Your task to perform on an android device: make emails show in primary in the gmail app Image 0: 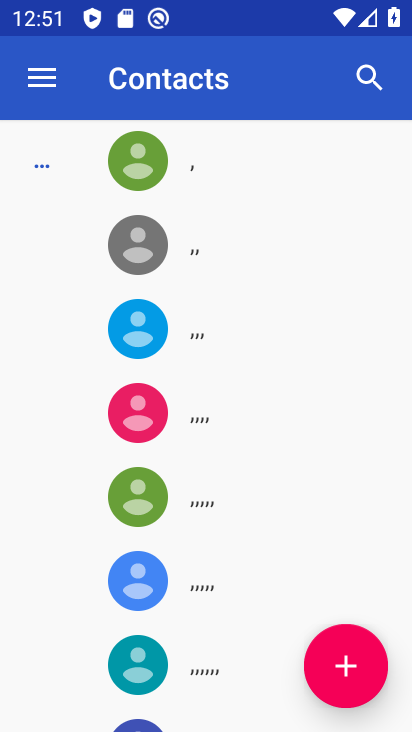
Step 0: press home button
Your task to perform on an android device: make emails show in primary in the gmail app Image 1: 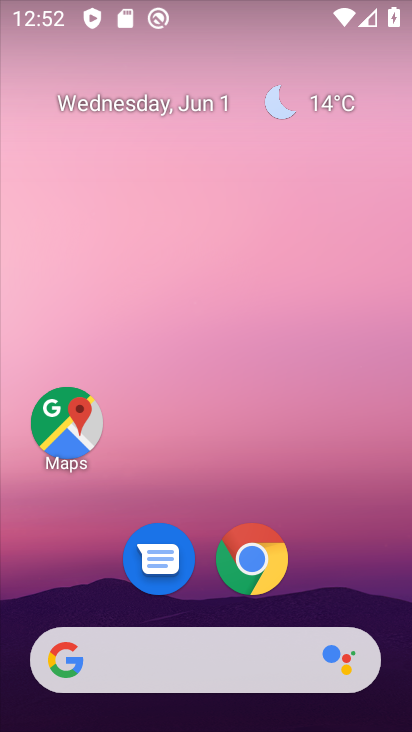
Step 1: drag from (383, 668) to (338, 197)
Your task to perform on an android device: make emails show in primary in the gmail app Image 2: 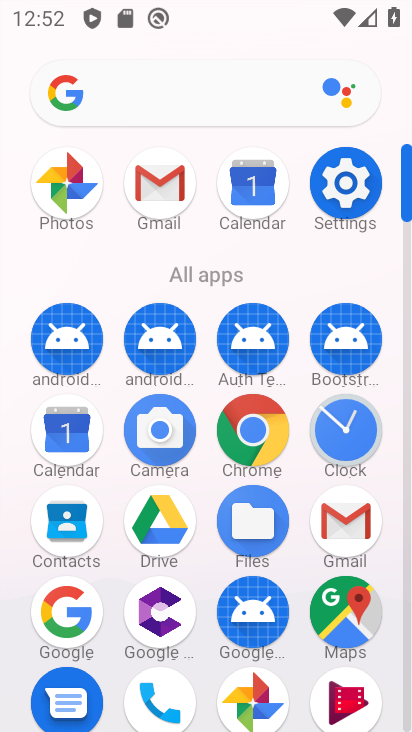
Step 2: click (350, 524)
Your task to perform on an android device: make emails show in primary in the gmail app Image 3: 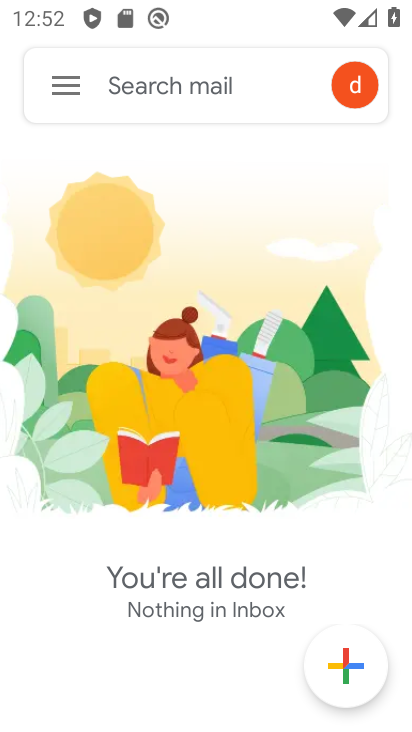
Step 3: click (74, 91)
Your task to perform on an android device: make emails show in primary in the gmail app Image 4: 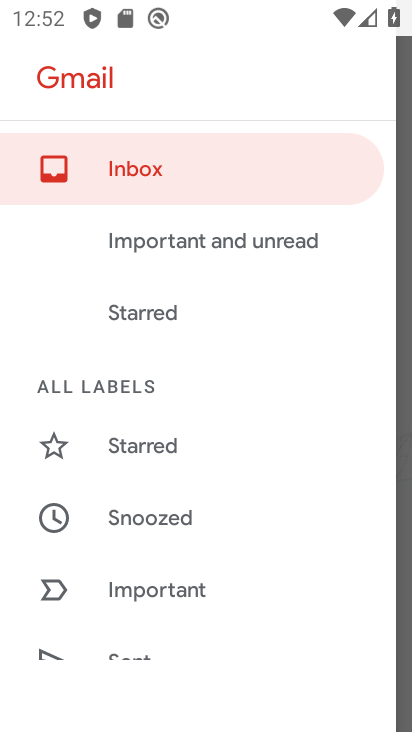
Step 4: drag from (225, 650) to (240, 339)
Your task to perform on an android device: make emails show in primary in the gmail app Image 5: 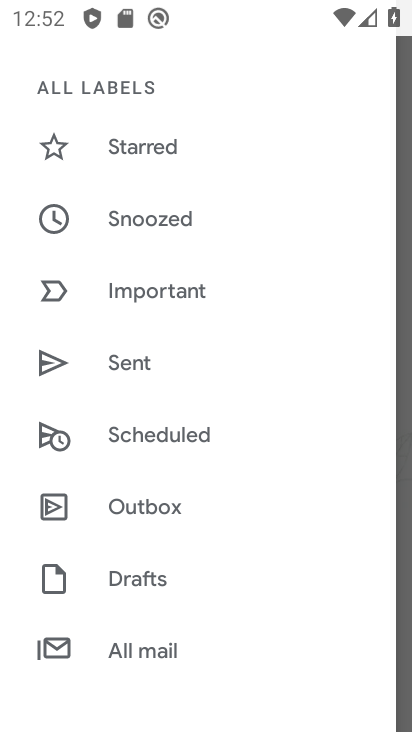
Step 5: drag from (272, 619) to (284, 278)
Your task to perform on an android device: make emails show in primary in the gmail app Image 6: 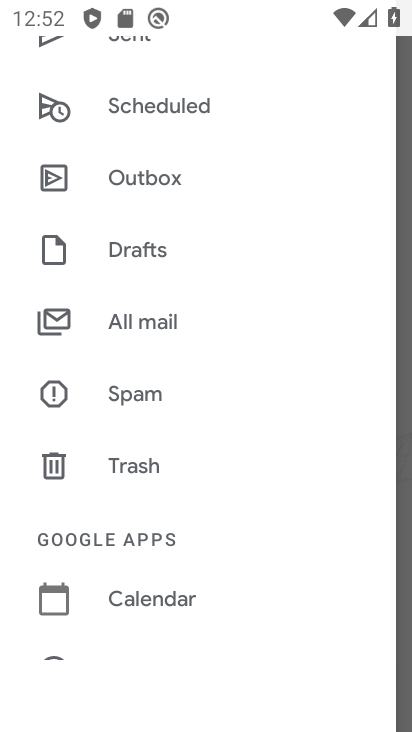
Step 6: drag from (263, 82) to (283, 500)
Your task to perform on an android device: make emails show in primary in the gmail app Image 7: 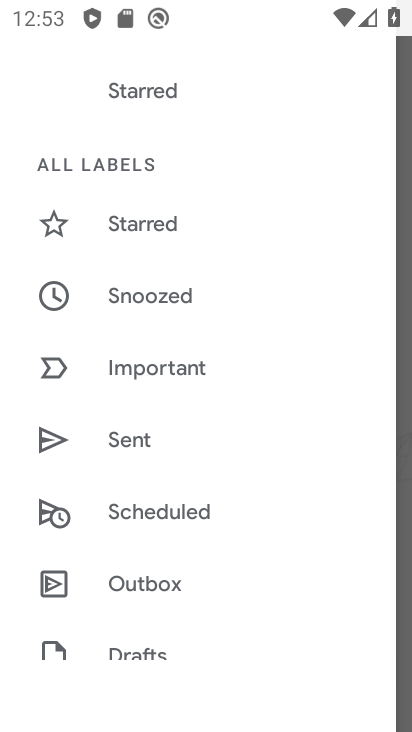
Step 7: drag from (274, 635) to (282, 222)
Your task to perform on an android device: make emails show in primary in the gmail app Image 8: 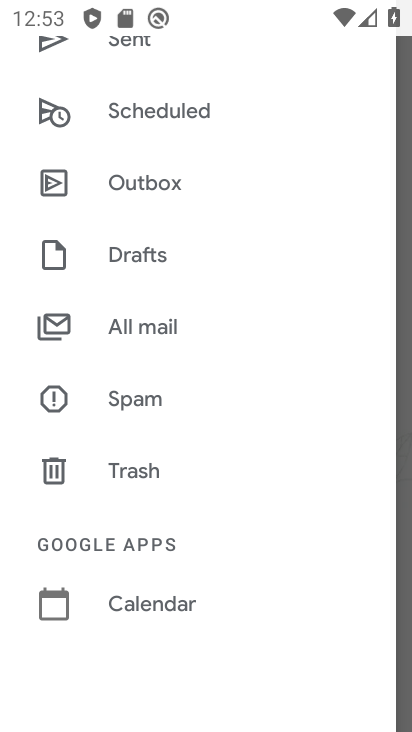
Step 8: drag from (274, 576) to (280, 252)
Your task to perform on an android device: make emails show in primary in the gmail app Image 9: 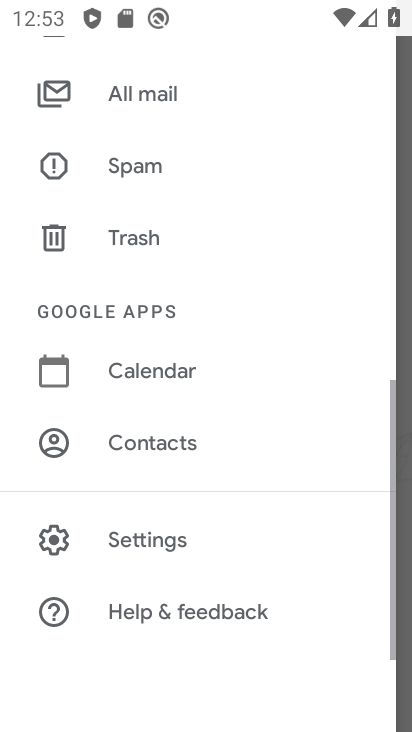
Step 9: click (98, 536)
Your task to perform on an android device: make emails show in primary in the gmail app Image 10: 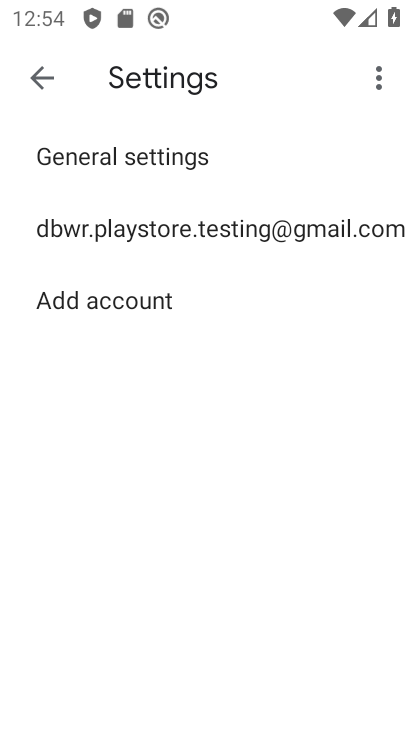
Step 10: click (130, 221)
Your task to perform on an android device: make emails show in primary in the gmail app Image 11: 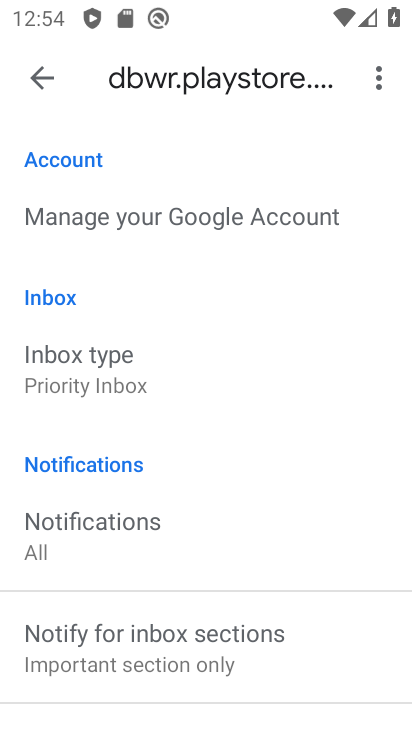
Step 11: click (59, 368)
Your task to perform on an android device: make emails show in primary in the gmail app Image 12: 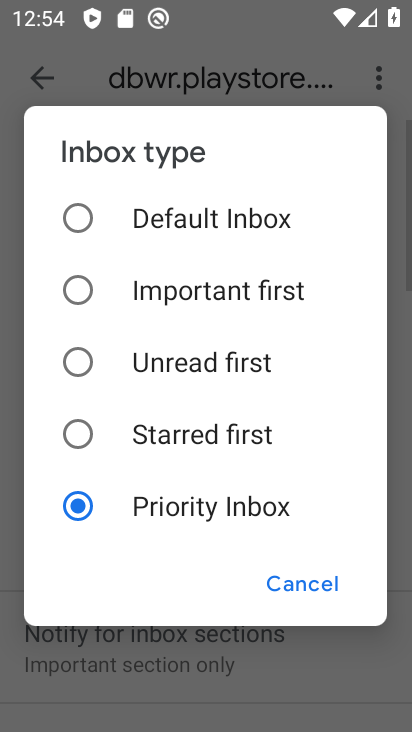
Step 12: click (130, 214)
Your task to perform on an android device: make emails show in primary in the gmail app Image 13: 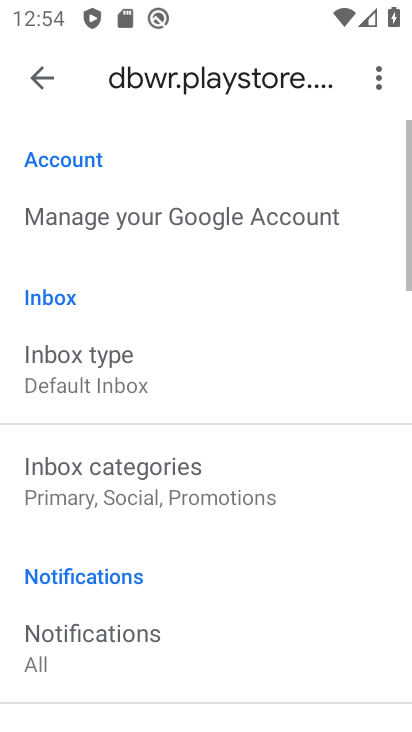
Step 13: click (106, 473)
Your task to perform on an android device: make emails show in primary in the gmail app Image 14: 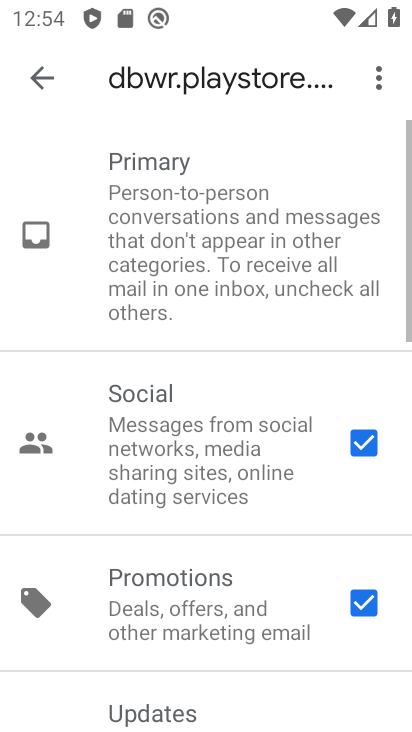
Step 14: click (360, 442)
Your task to perform on an android device: make emails show in primary in the gmail app Image 15: 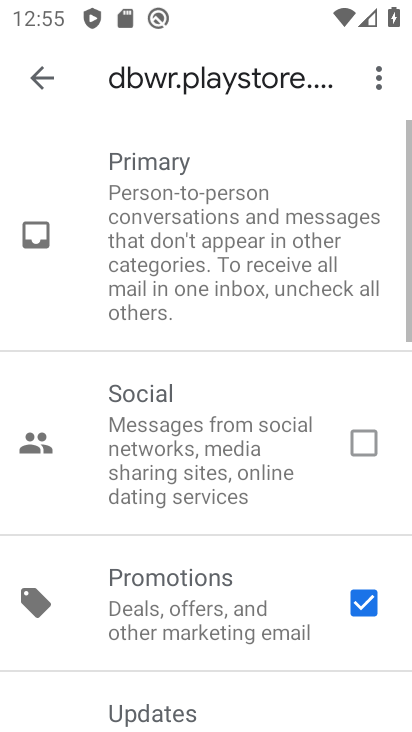
Step 15: click (365, 594)
Your task to perform on an android device: make emails show in primary in the gmail app Image 16: 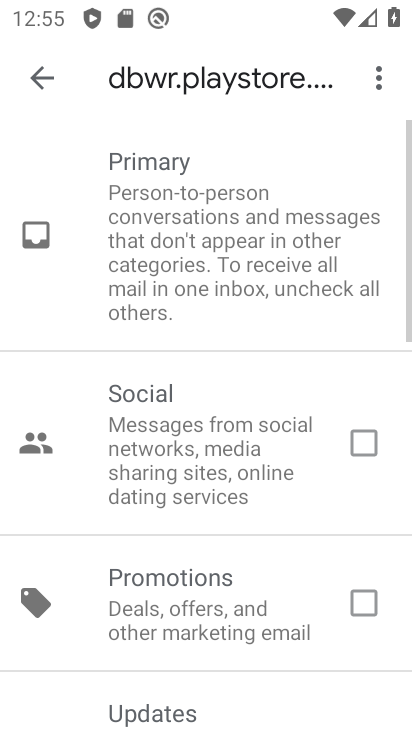
Step 16: task complete